Your task to perform on an android device: Open Youtube and go to the subscriptions tab Image 0: 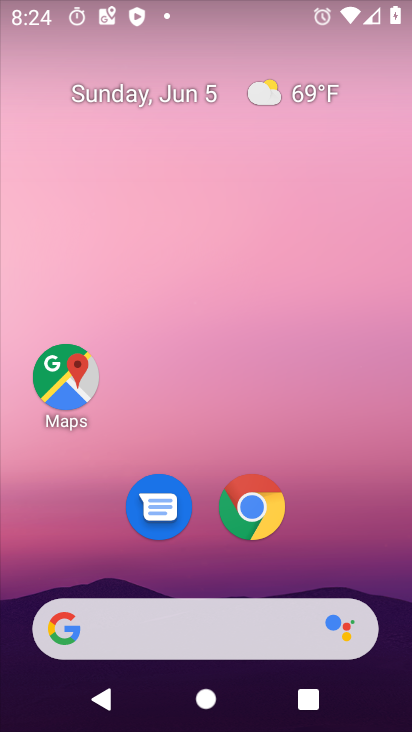
Step 0: drag from (328, 560) to (199, 46)
Your task to perform on an android device: Open Youtube and go to the subscriptions tab Image 1: 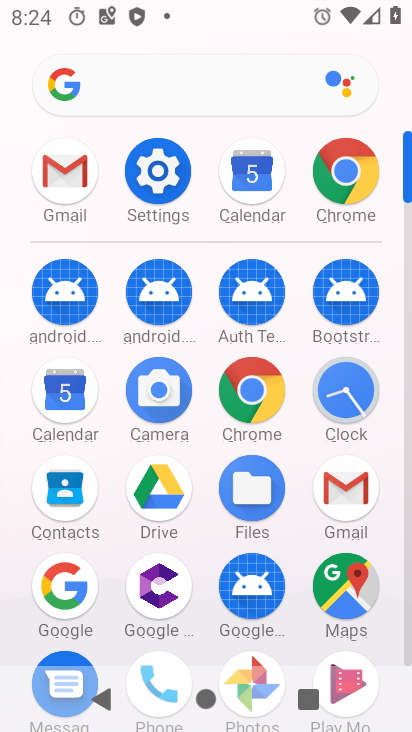
Step 1: drag from (13, 600) to (16, 231)
Your task to perform on an android device: Open Youtube and go to the subscriptions tab Image 2: 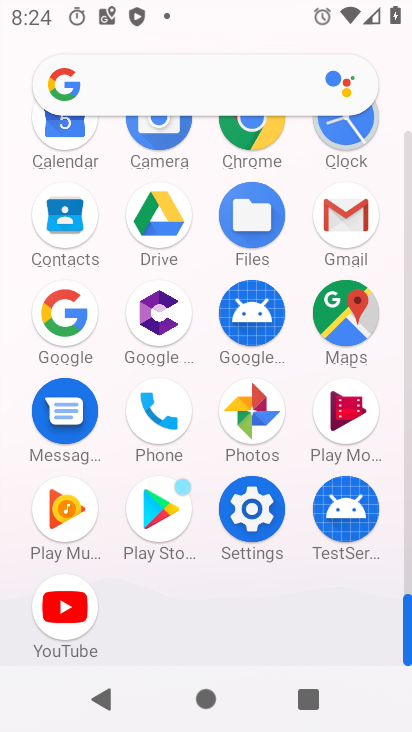
Step 2: click (66, 599)
Your task to perform on an android device: Open Youtube and go to the subscriptions tab Image 3: 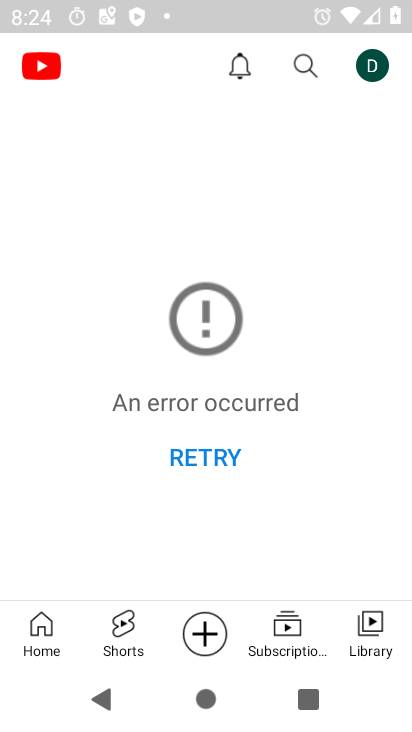
Step 3: click (366, 616)
Your task to perform on an android device: Open Youtube and go to the subscriptions tab Image 4: 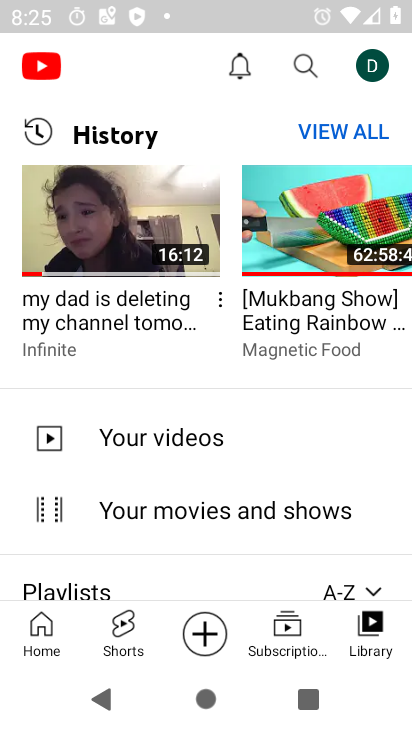
Step 4: click (151, 435)
Your task to perform on an android device: Open Youtube and go to the subscriptions tab Image 5: 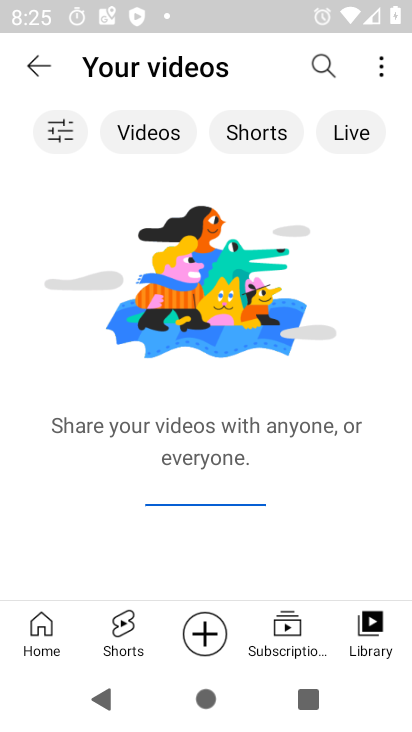
Step 5: task complete